Your task to perform on an android device: Open notification settings Image 0: 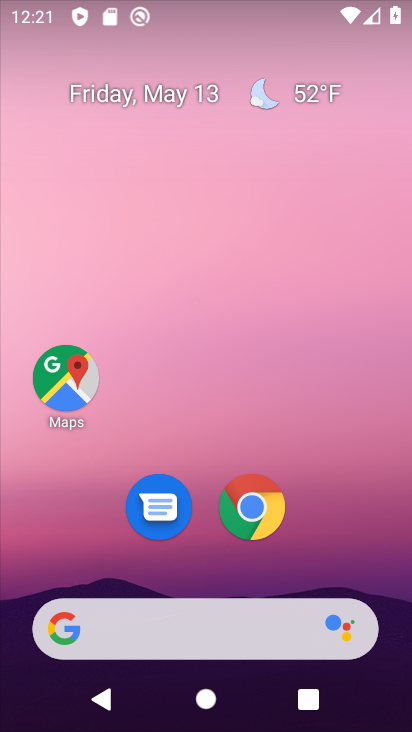
Step 0: drag from (217, 594) to (243, 177)
Your task to perform on an android device: Open notification settings Image 1: 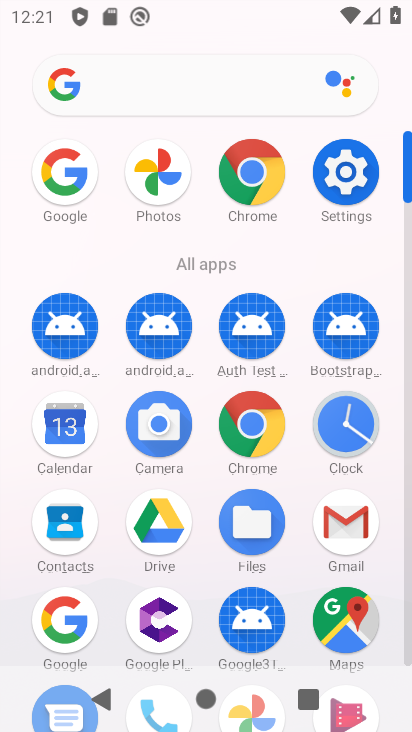
Step 1: click (355, 169)
Your task to perform on an android device: Open notification settings Image 2: 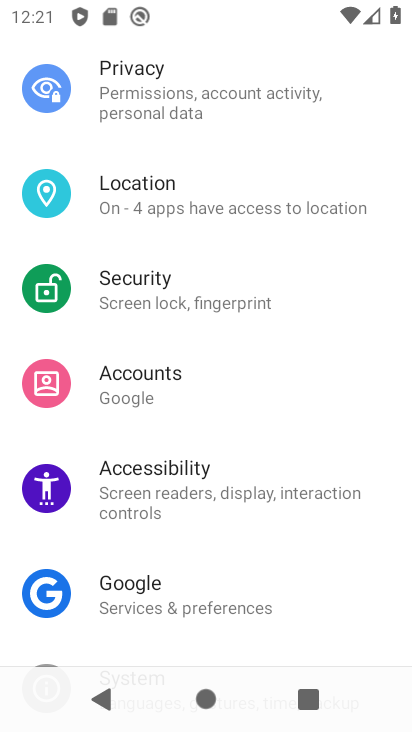
Step 2: drag from (223, 118) to (236, 485)
Your task to perform on an android device: Open notification settings Image 3: 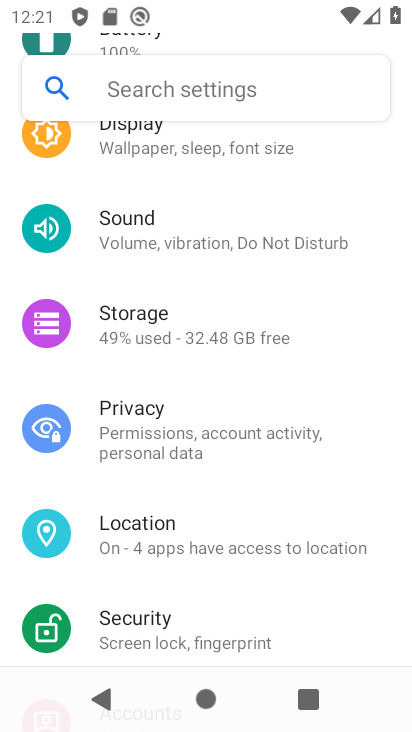
Step 3: drag from (195, 146) to (210, 488)
Your task to perform on an android device: Open notification settings Image 4: 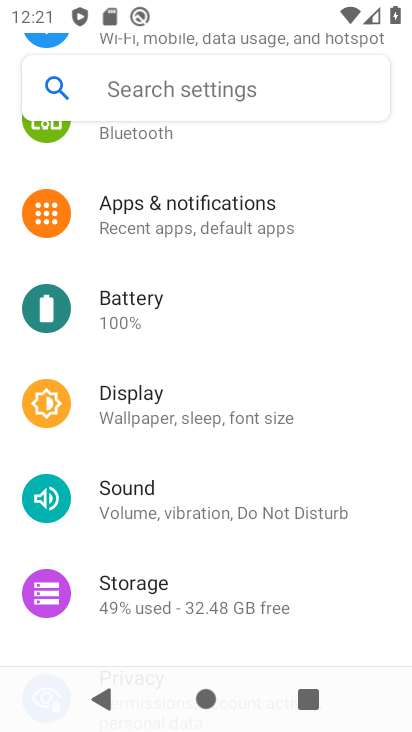
Step 4: click (181, 220)
Your task to perform on an android device: Open notification settings Image 5: 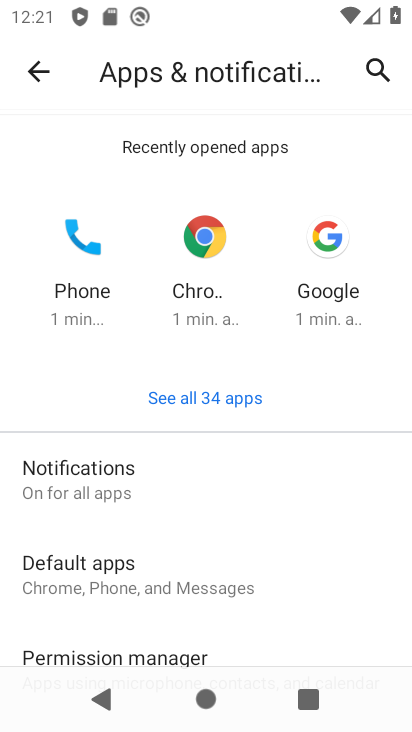
Step 5: drag from (230, 643) to (280, 220)
Your task to perform on an android device: Open notification settings Image 6: 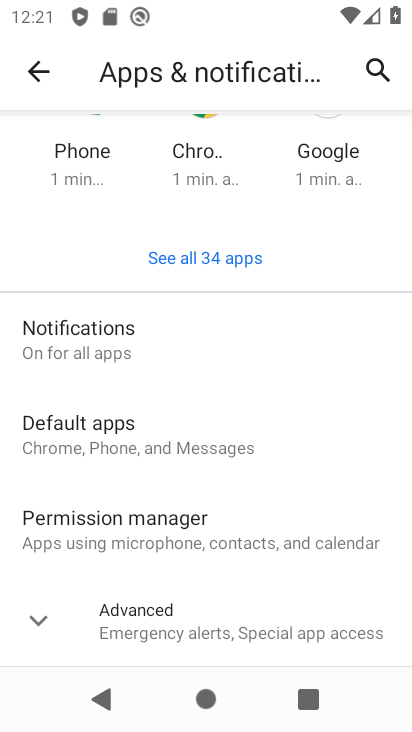
Step 6: click (225, 626)
Your task to perform on an android device: Open notification settings Image 7: 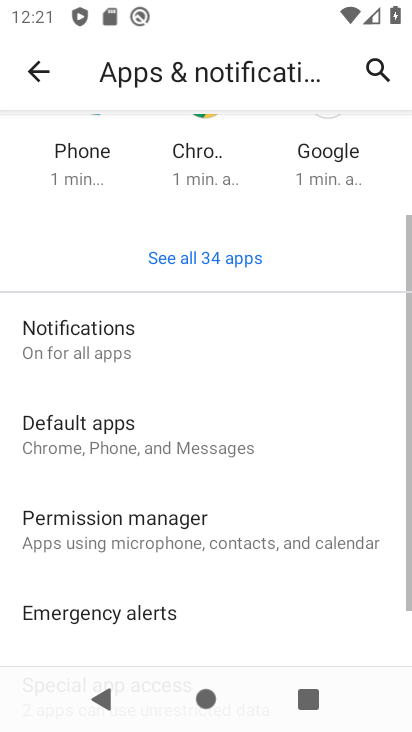
Step 7: task complete